Your task to perform on an android device: Go to CNN.com Image 0: 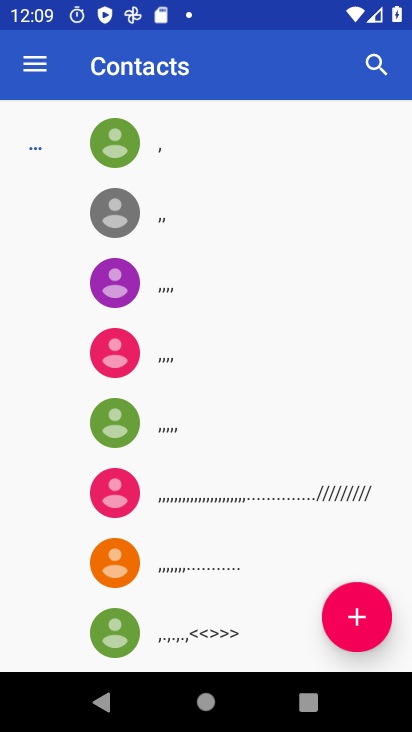
Step 0: press home button
Your task to perform on an android device: Go to CNN.com Image 1: 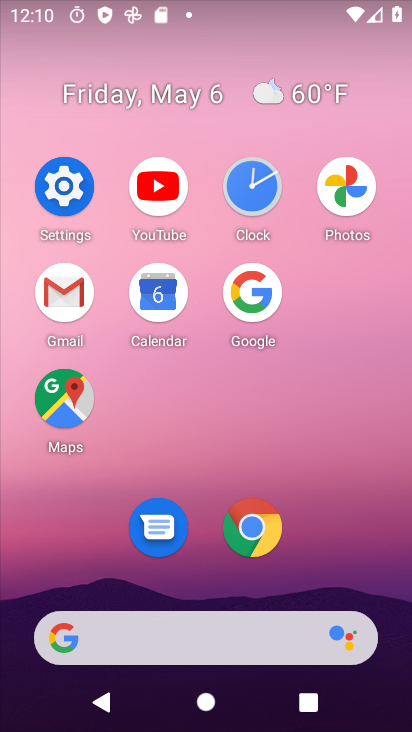
Step 1: click (253, 530)
Your task to perform on an android device: Go to CNN.com Image 2: 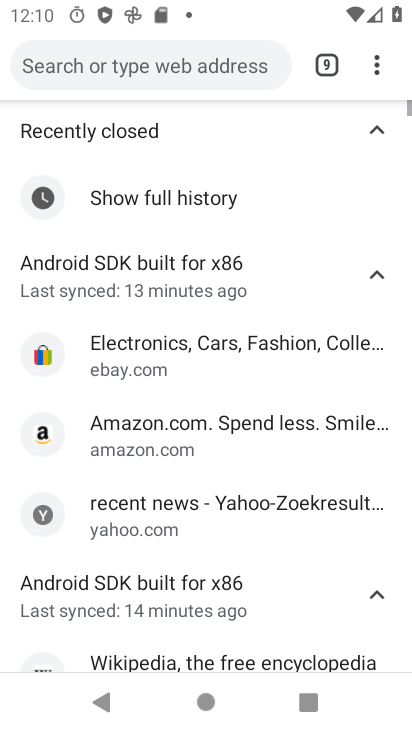
Step 2: click (320, 67)
Your task to perform on an android device: Go to CNN.com Image 3: 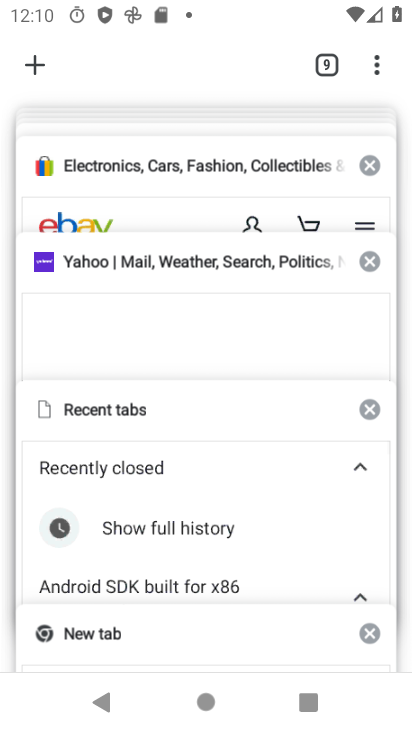
Step 3: click (25, 65)
Your task to perform on an android device: Go to CNN.com Image 4: 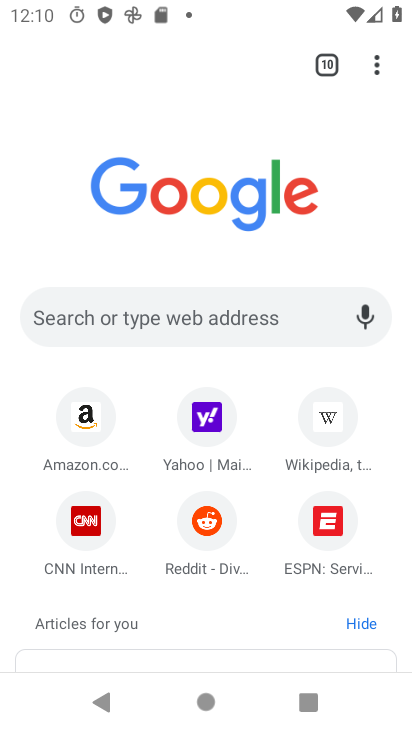
Step 4: click (150, 318)
Your task to perform on an android device: Go to CNN.com Image 5: 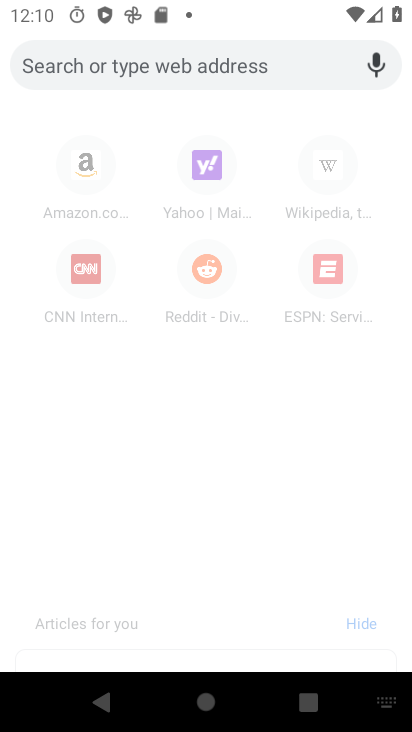
Step 5: type "cnn"
Your task to perform on an android device: Go to CNN.com Image 6: 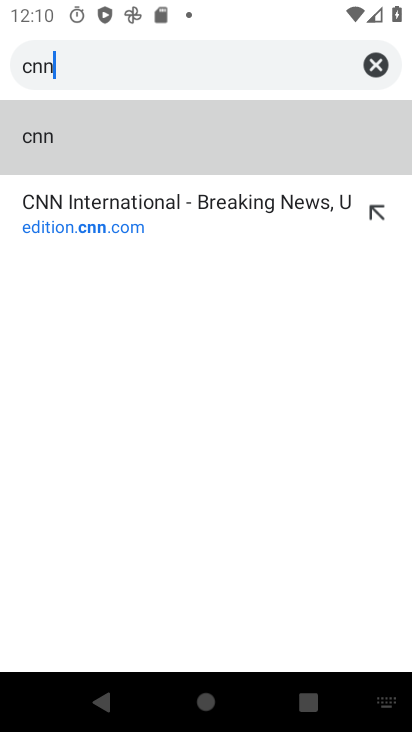
Step 6: click (86, 225)
Your task to perform on an android device: Go to CNN.com Image 7: 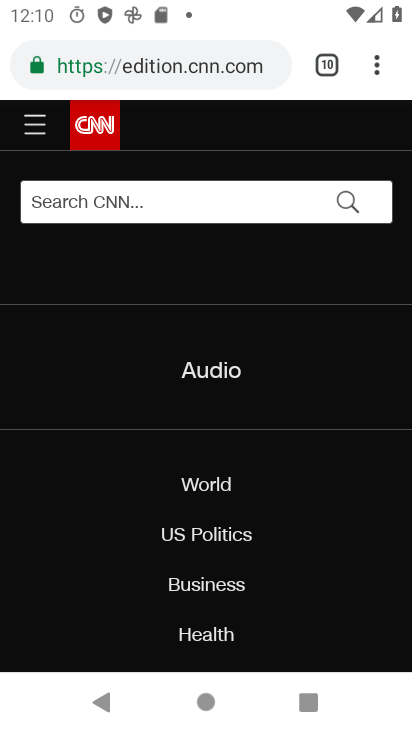
Step 7: task complete